Your task to perform on an android device: toggle notification dots Image 0: 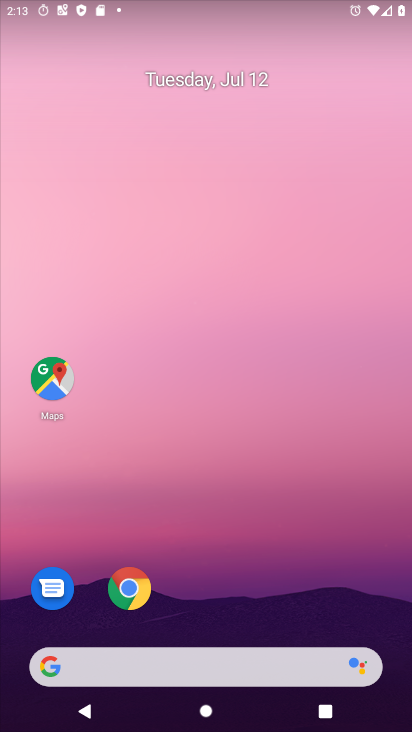
Step 0: click (292, 54)
Your task to perform on an android device: toggle notification dots Image 1: 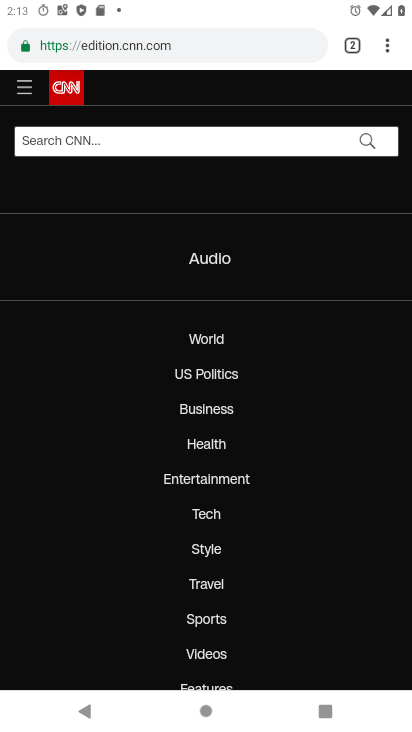
Step 1: press home button
Your task to perform on an android device: toggle notification dots Image 2: 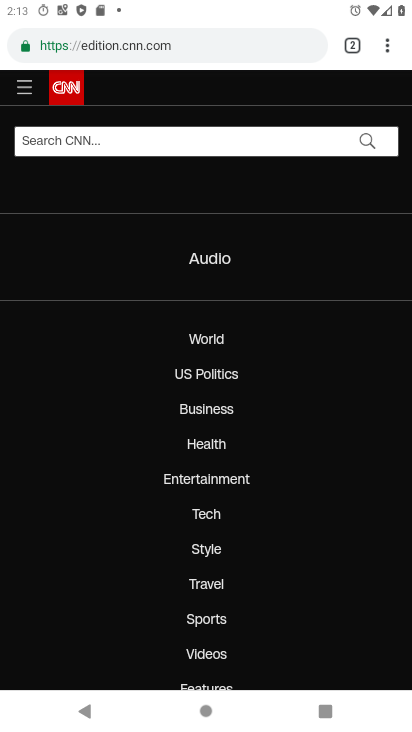
Step 2: drag from (208, 573) to (237, 59)
Your task to perform on an android device: toggle notification dots Image 3: 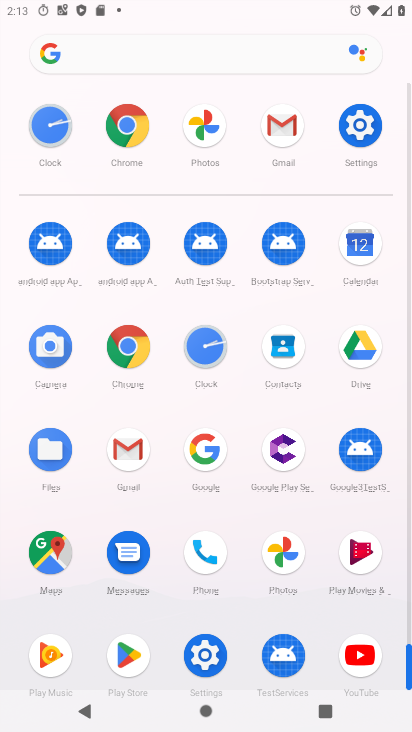
Step 3: click (368, 119)
Your task to perform on an android device: toggle notification dots Image 4: 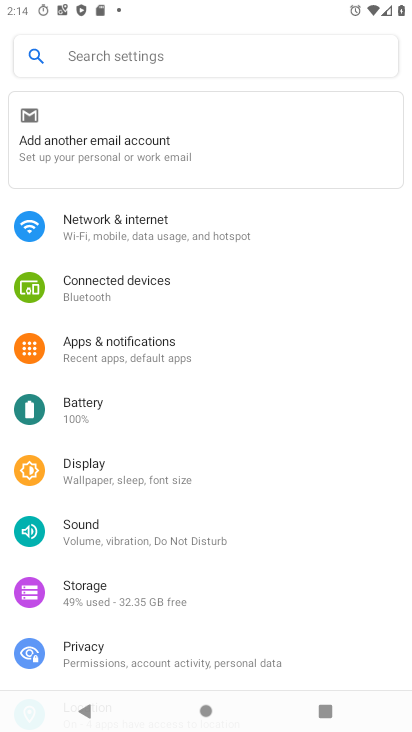
Step 4: click (149, 325)
Your task to perform on an android device: toggle notification dots Image 5: 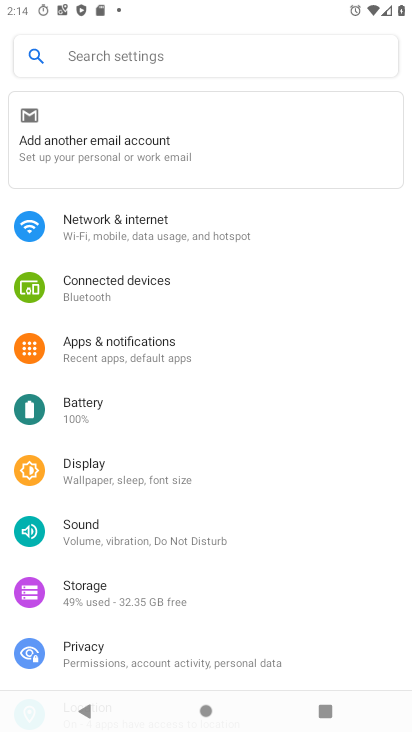
Step 5: click (149, 325)
Your task to perform on an android device: toggle notification dots Image 6: 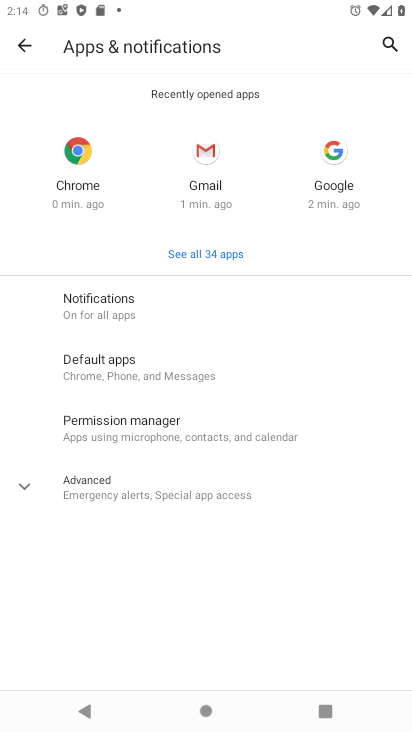
Step 6: drag from (161, 417) to (255, 133)
Your task to perform on an android device: toggle notification dots Image 7: 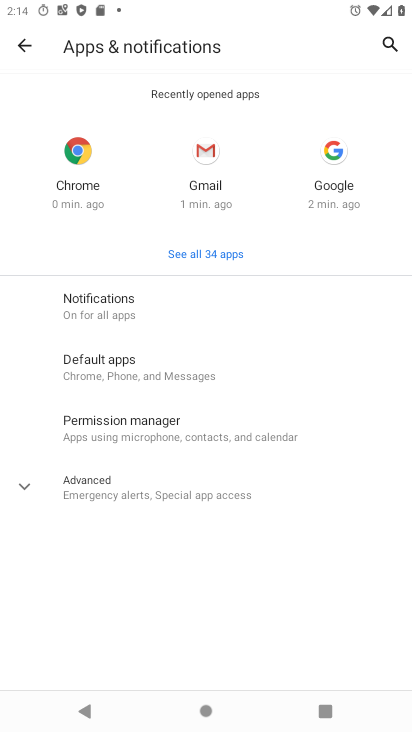
Step 7: click (154, 309)
Your task to perform on an android device: toggle notification dots Image 8: 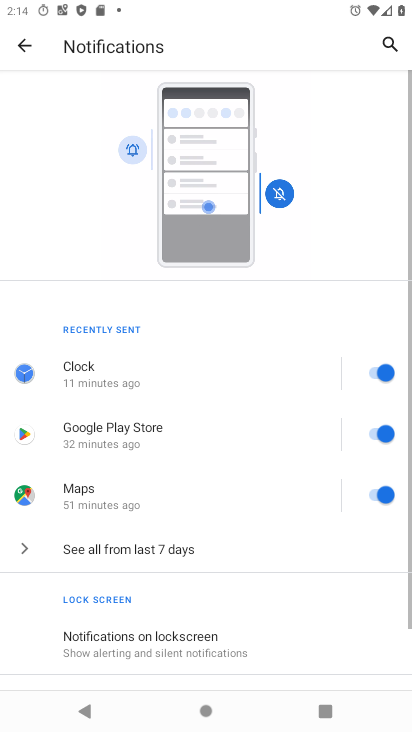
Step 8: drag from (200, 332) to (252, 82)
Your task to perform on an android device: toggle notification dots Image 9: 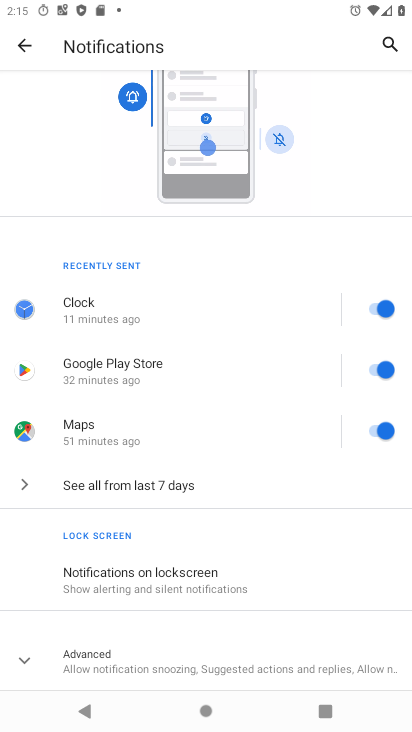
Step 9: drag from (153, 565) to (261, 217)
Your task to perform on an android device: toggle notification dots Image 10: 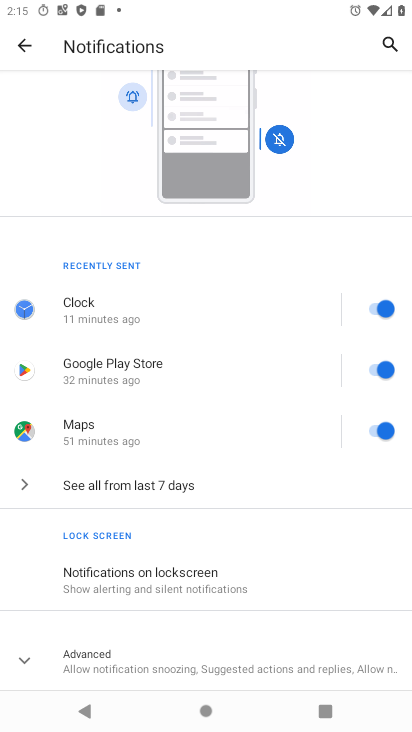
Step 10: click (137, 671)
Your task to perform on an android device: toggle notification dots Image 11: 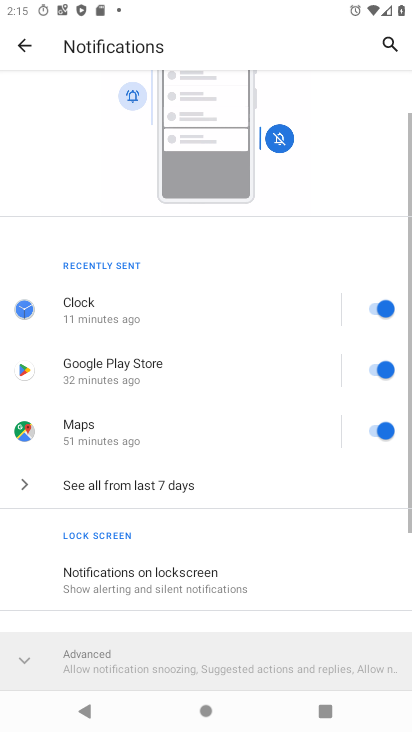
Step 11: drag from (196, 638) to (284, 131)
Your task to perform on an android device: toggle notification dots Image 12: 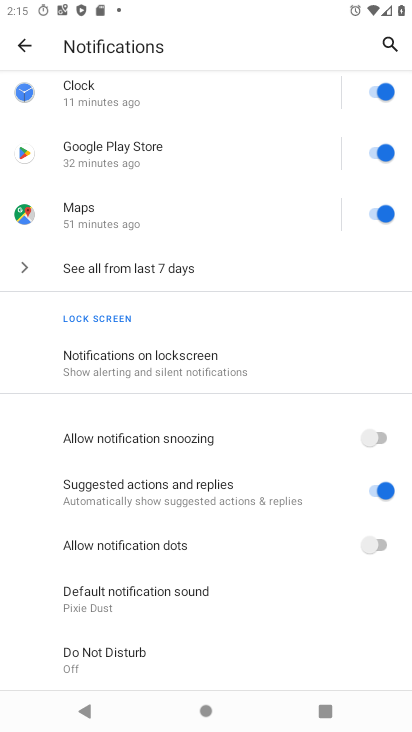
Step 12: click (375, 532)
Your task to perform on an android device: toggle notification dots Image 13: 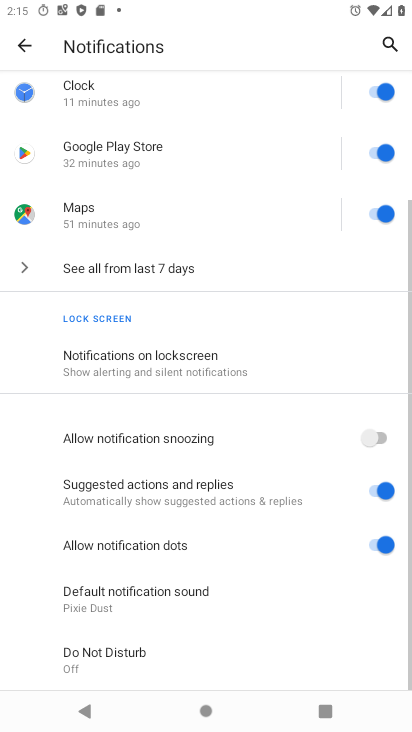
Step 13: task complete